Your task to perform on an android device: Open Google Chrome Image 0: 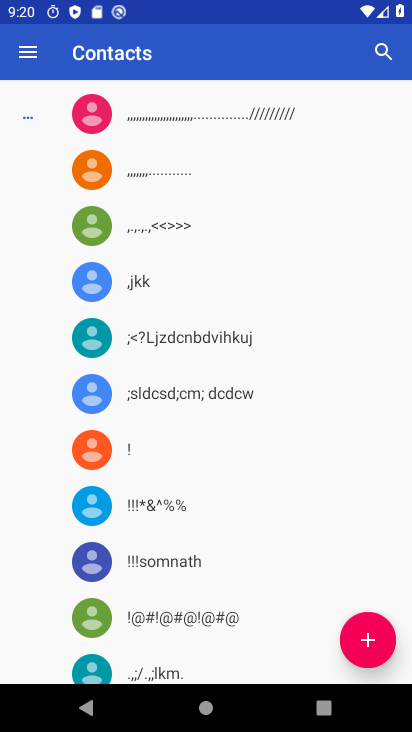
Step 0: press home button
Your task to perform on an android device: Open Google Chrome Image 1: 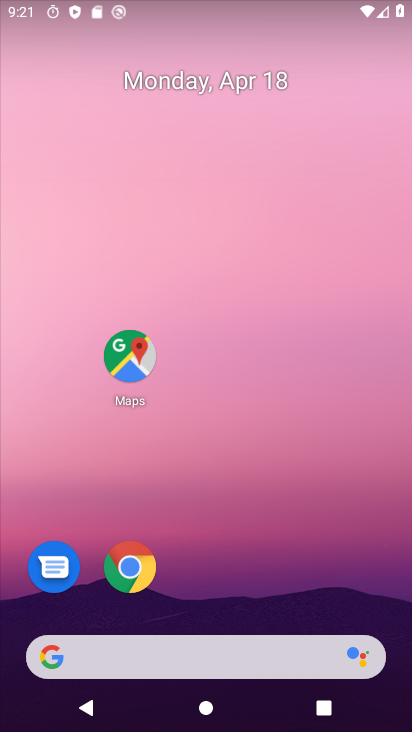
Step 1: drag from (244, 658) to (354, 296)
Your task to perform on an android device: Open Google Chrome Image 2: 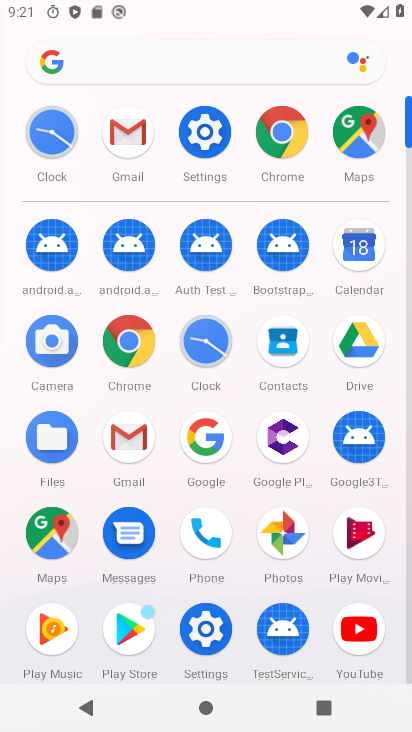
Step 2: click (144, 346)
Your task to perform on an android device: Open Google Chrome Image 3: 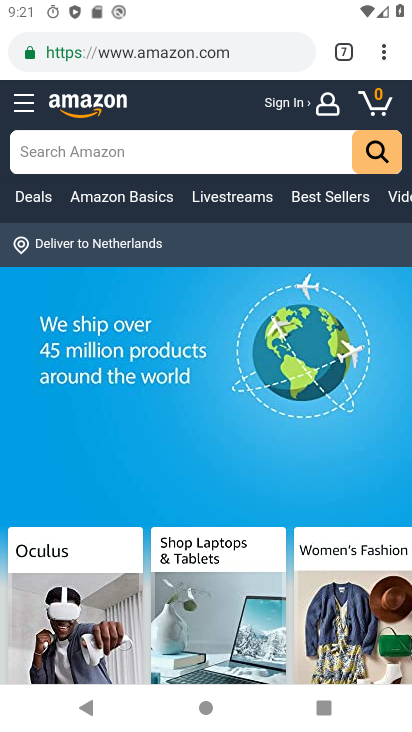
Step 3: click (382, 68)
Your task to perform on an android device: Open Google Chrome Image 4: 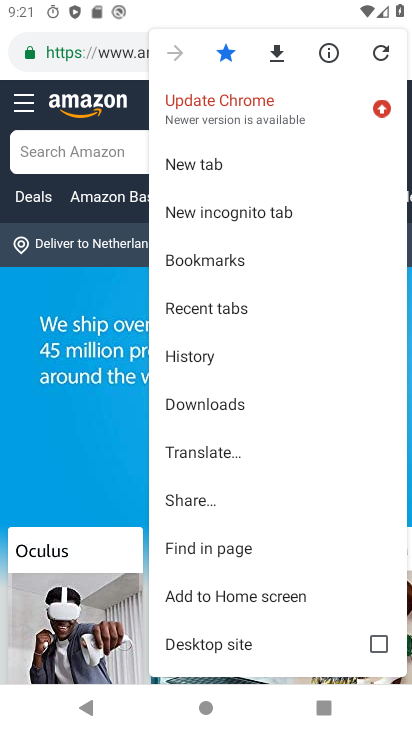
Step 4: click (247, 484)
Your task to perform on an android device: Open Google Chrome Image 5: 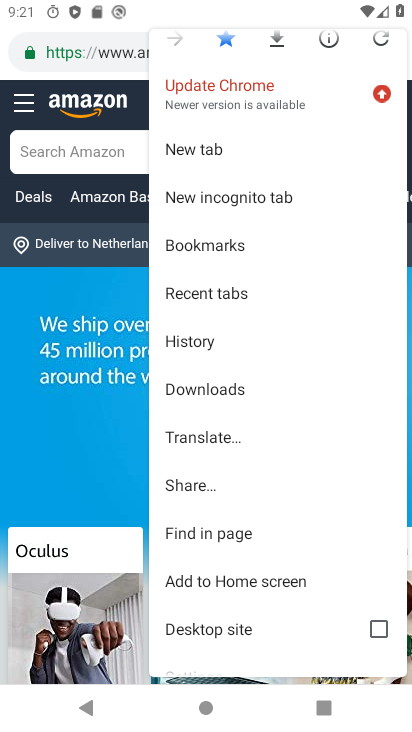
Step 5: click (227, 86)
Your task to perform on an android device: Open Google Chrome Image 6: 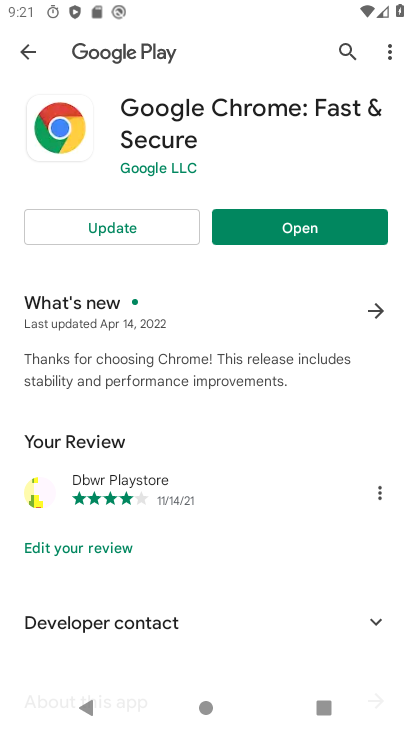
Step 6: click (67, 234)
Your task to perform on an android device: Open Google Chrome Image 7: 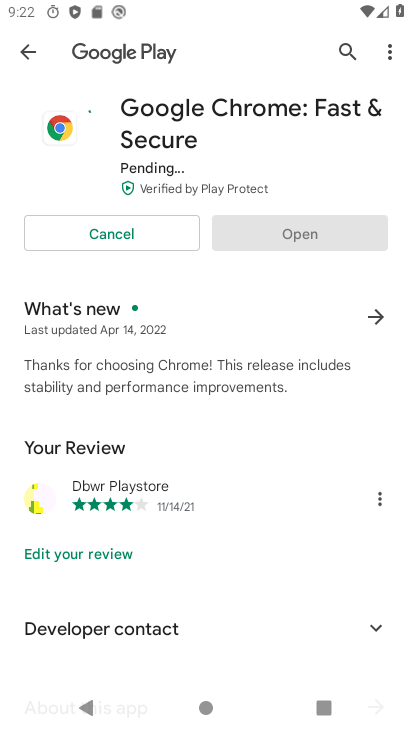
Step 7: click (159, 536)
Your task to perform on an android device: Open Google Chrome Image 8: 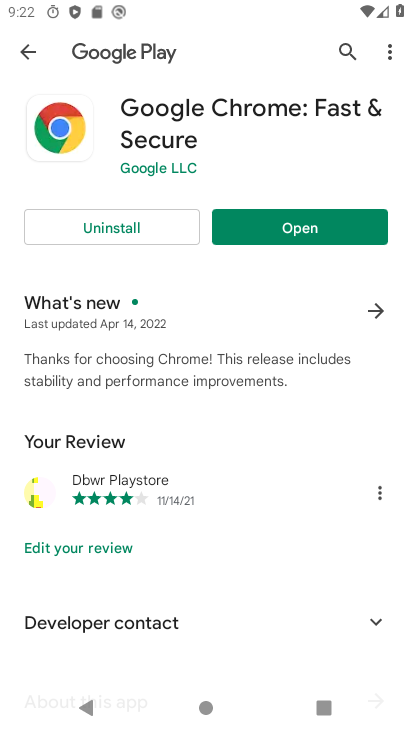
Step 8: click (292, 230)
Your task to perform on an android device: Open Google Chrome Image 9: 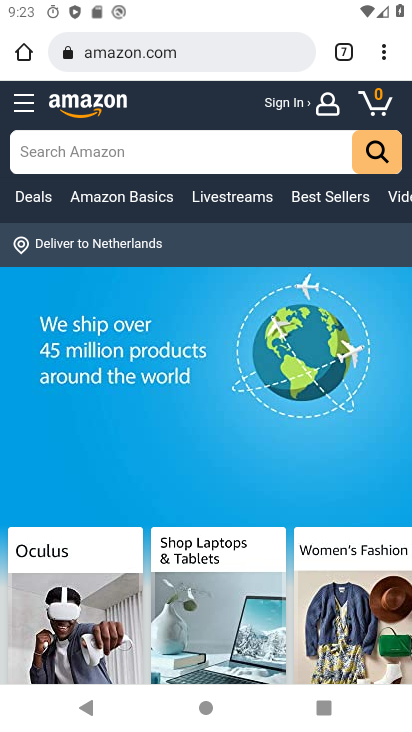
Step 9: task complete